Your task to perform on an android device: install app "Clock" Image 0: 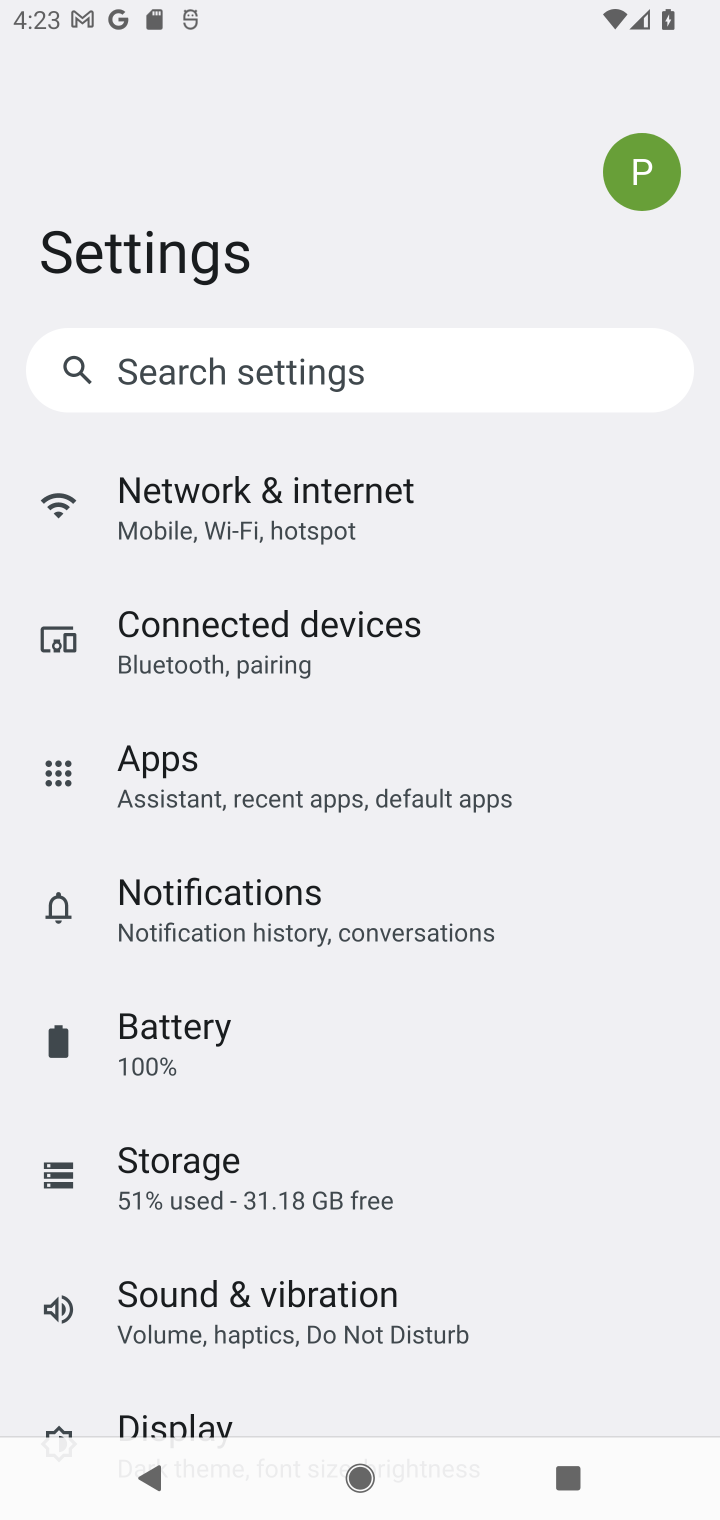
Step 0: press home button
Your task to perform on an android device: install app "Clock" Image 1: 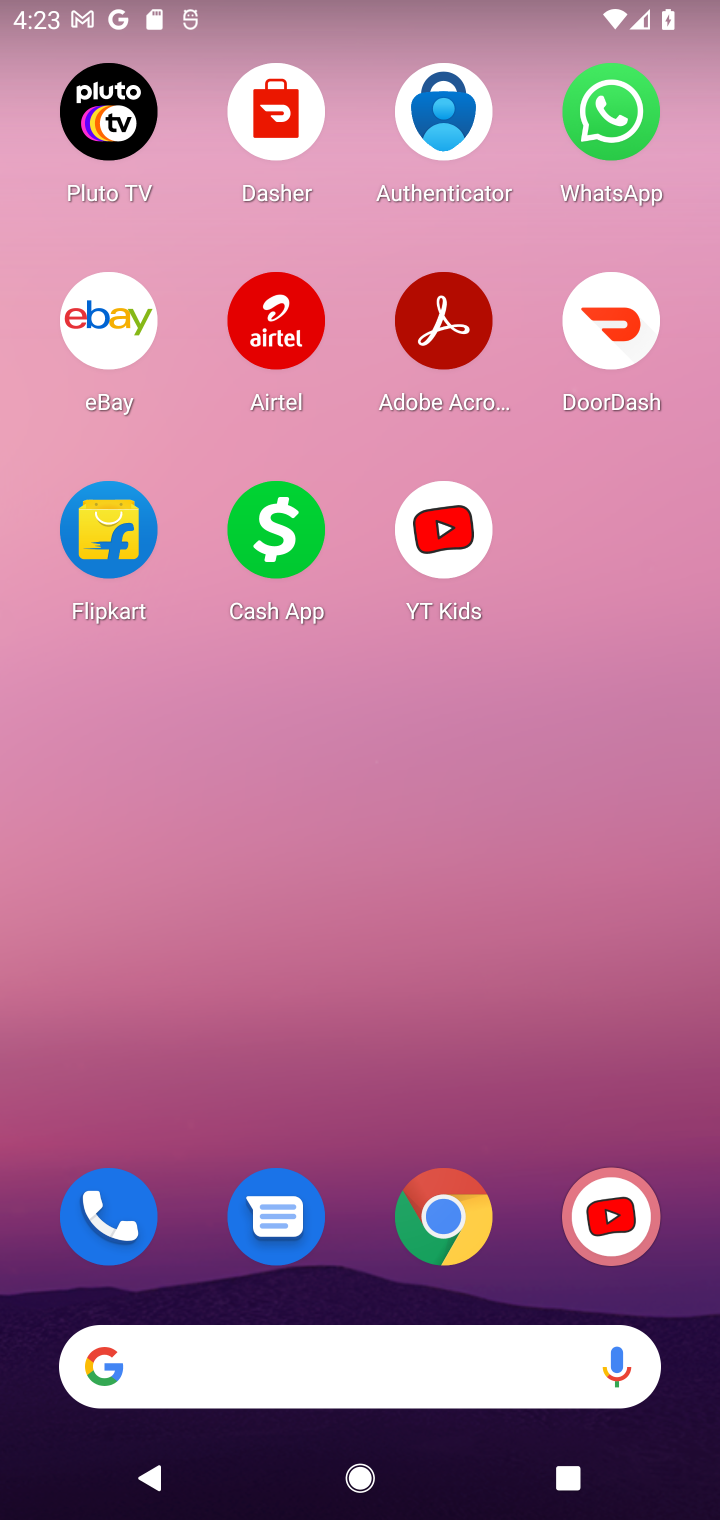
Step 1: drag from (339, 1009) to (396, 213)
Your task to perform on an android device: install app "Clock" Image 2: 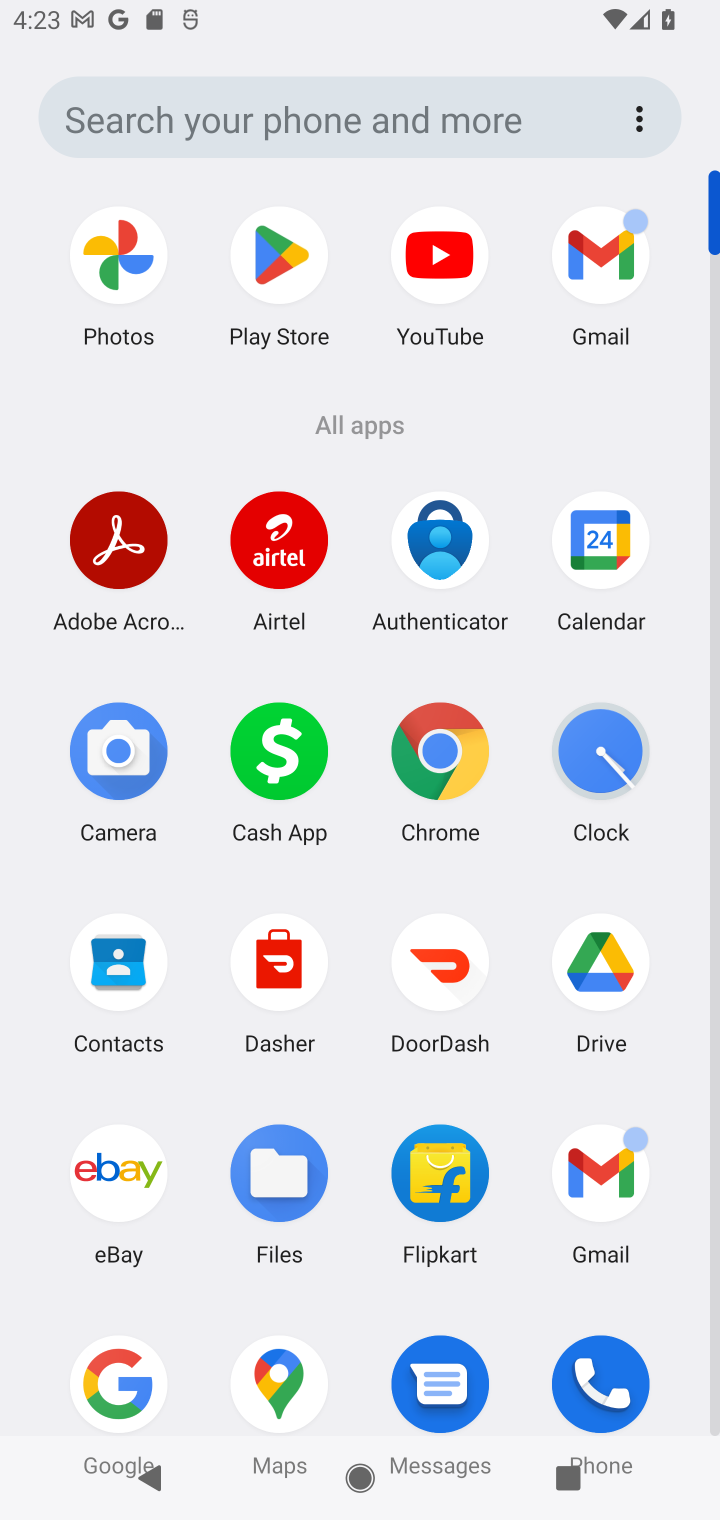
Step 2: click (287, 269)
Your task to perform on an android device: install app "Clock" Image 3: 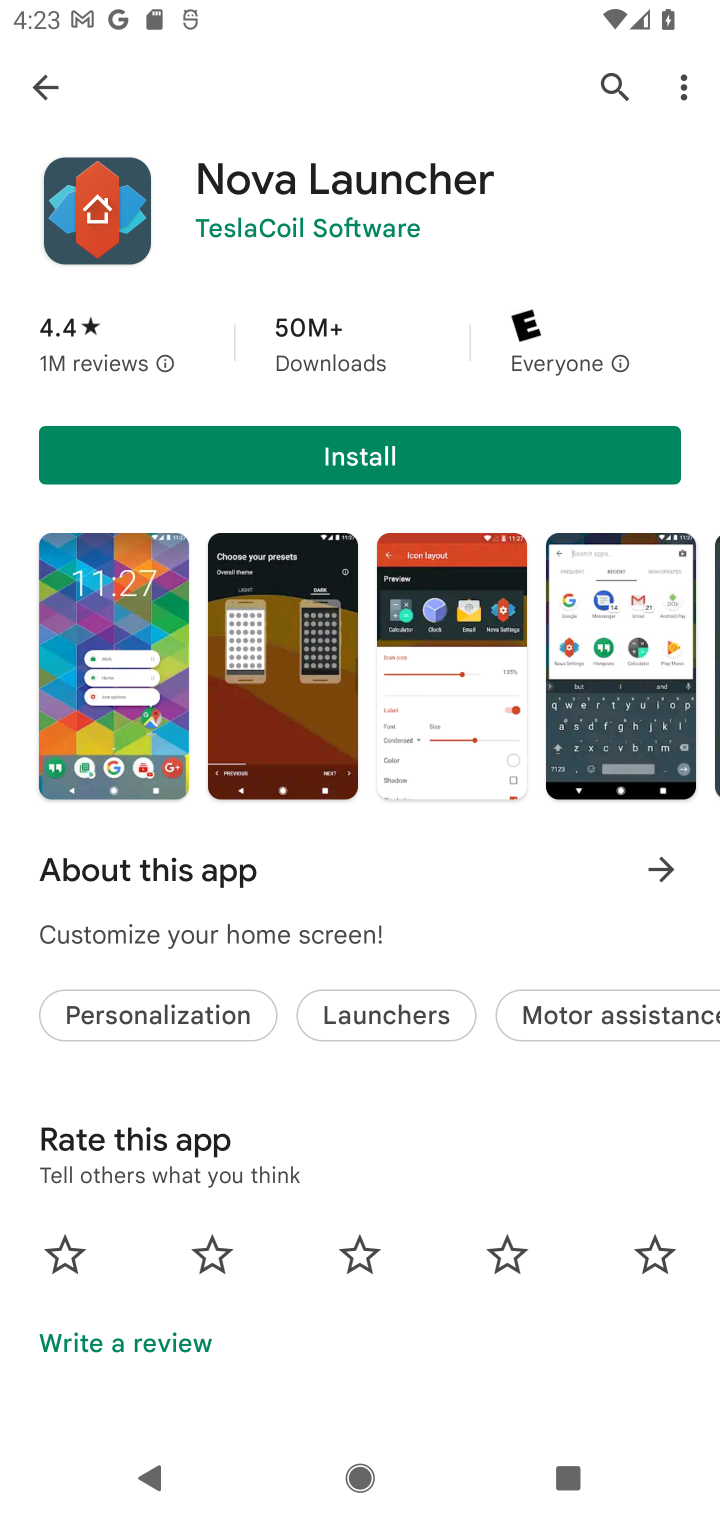
Step 3: click (635, 97)
Your task to perform on an android device: install app "Clock" Image 4: 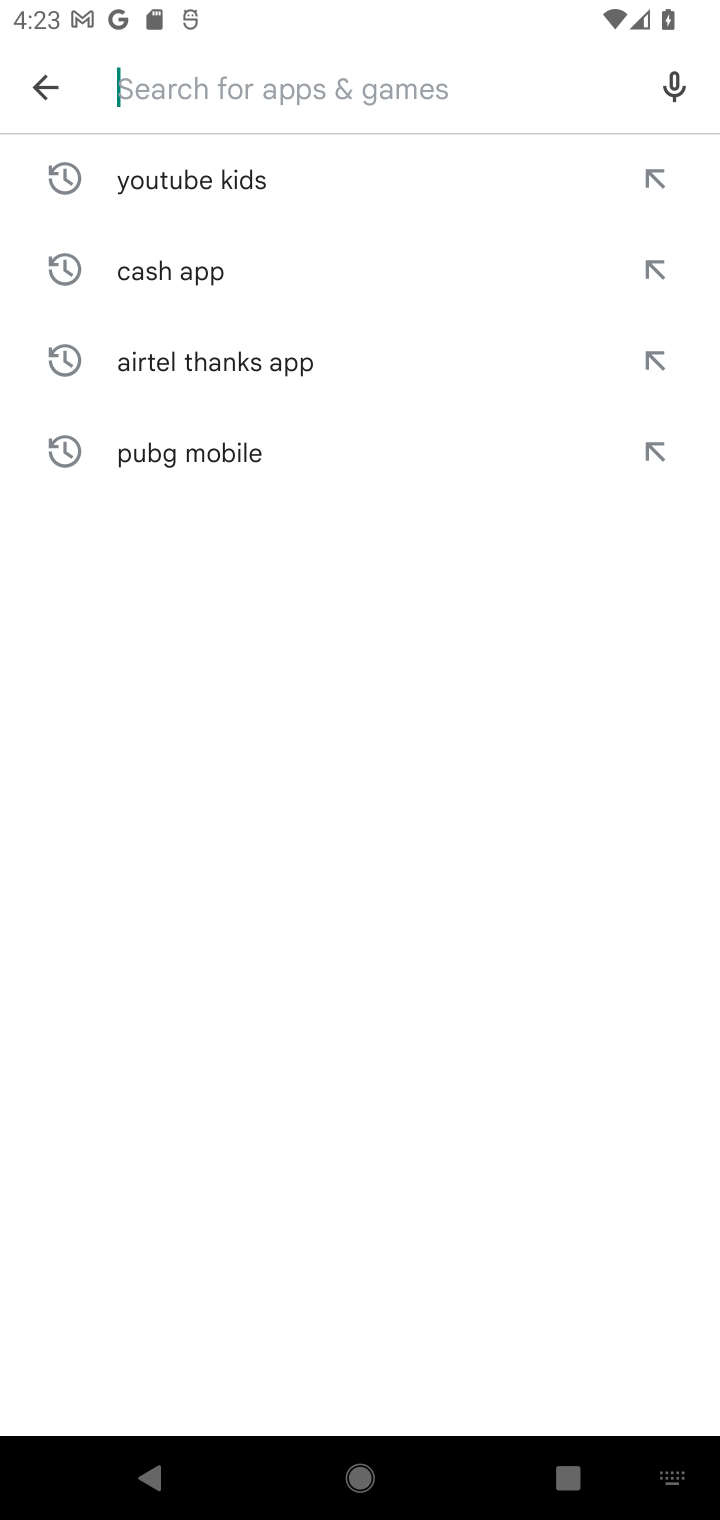
Step 4: type "Clock"
Your task to perform on an android device: install app "Clock" Image 5: 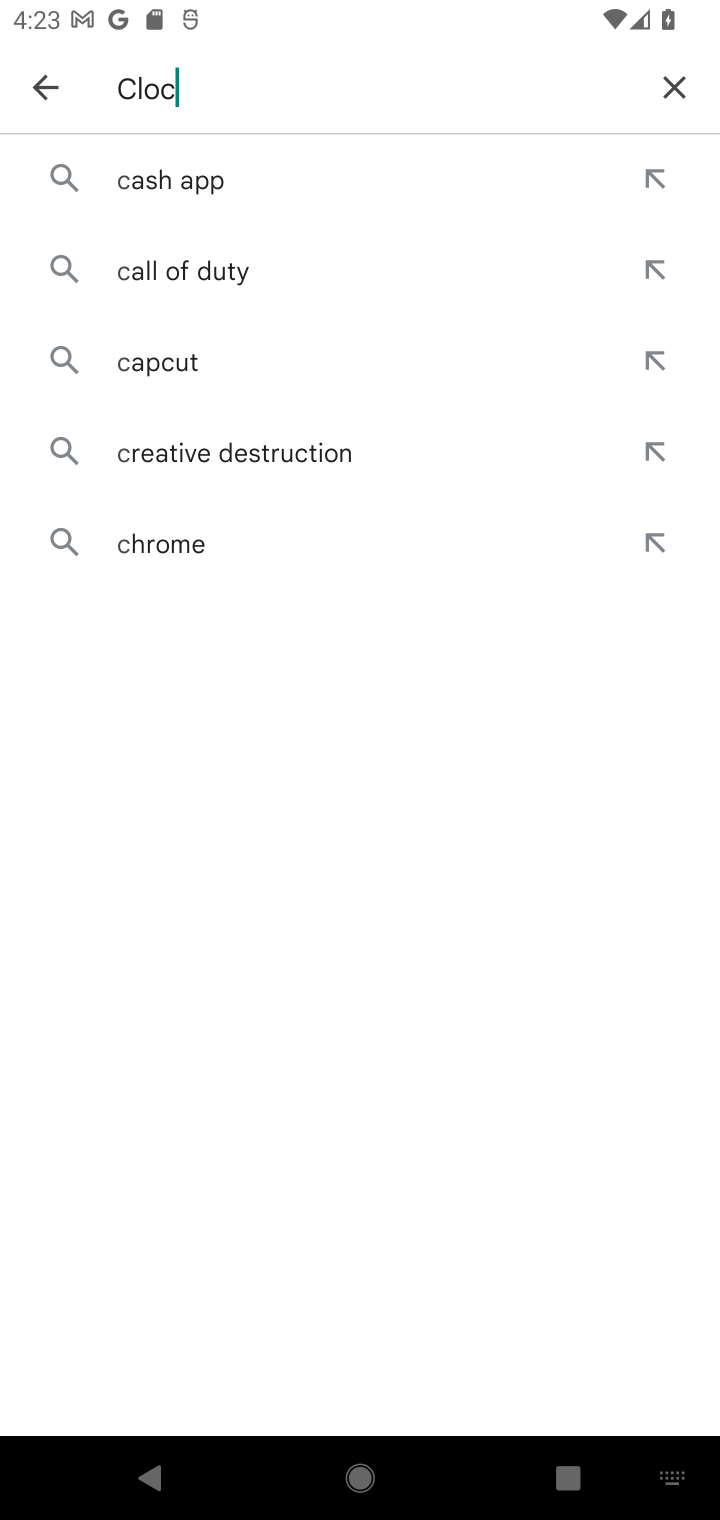
Step 5: type ""
Your task to perform on an android device: install app "Clock" Image 6: 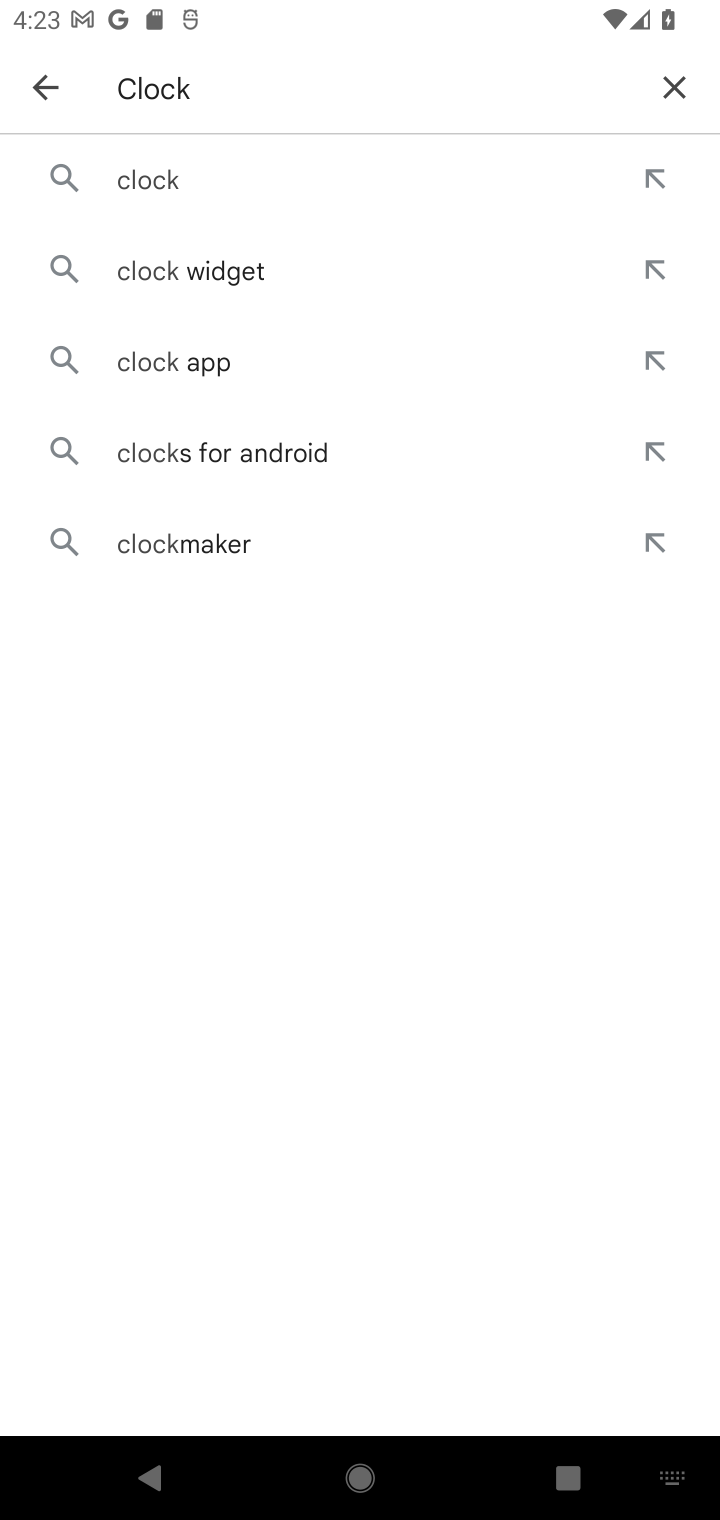
Step 6: click (172, 176)
Your task to perform on an android device: install app "Clock" Image 7: 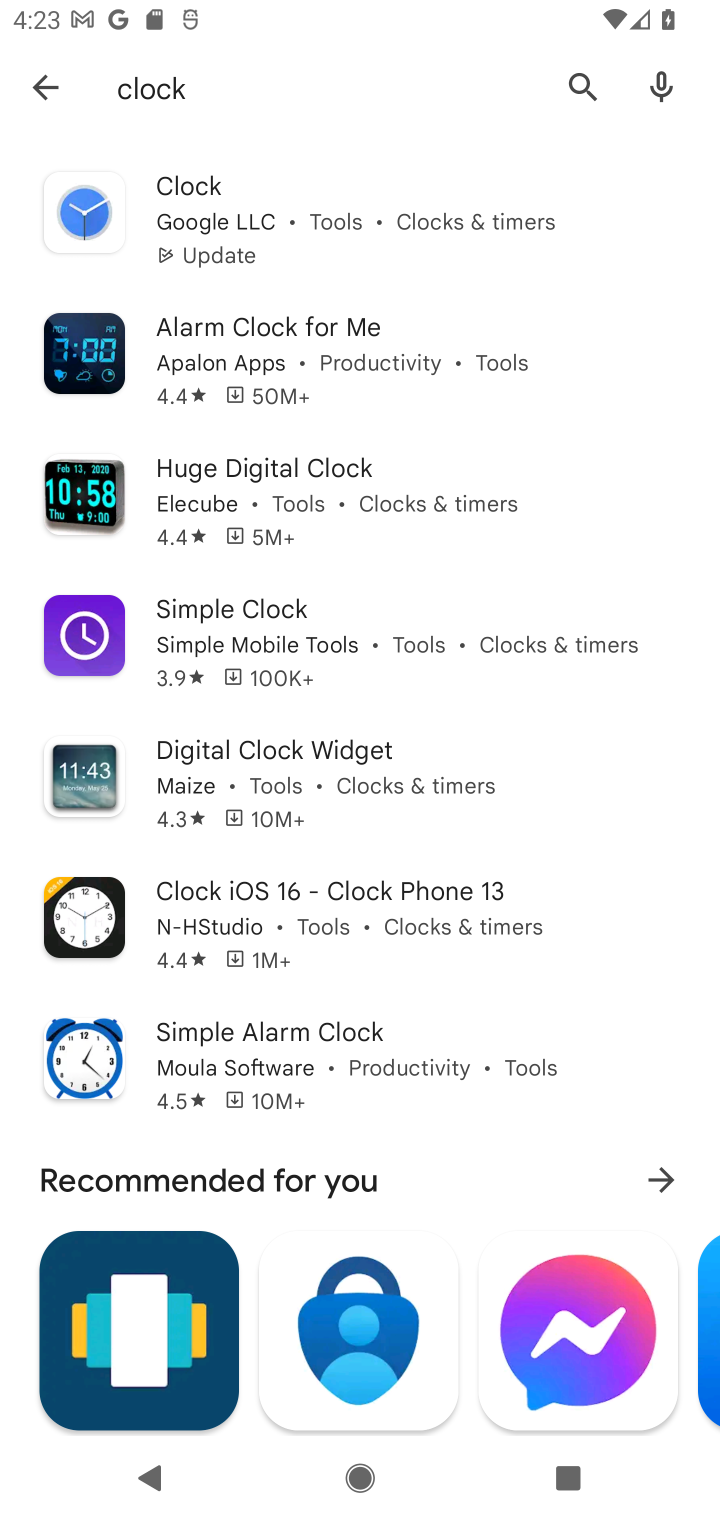
Step 7: click (273, 224)
Your task to perform on an android device: install app "Clock" Image 8: 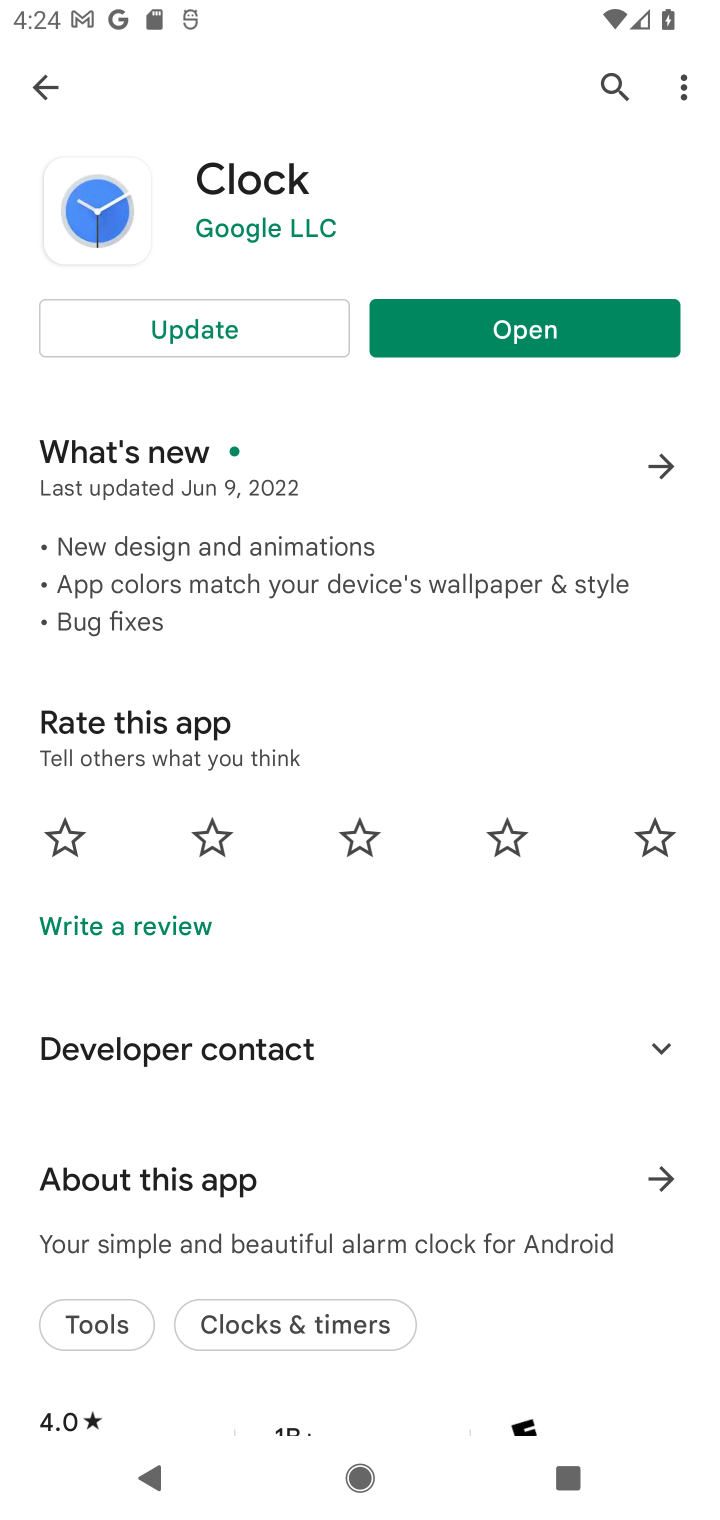
Step 8: task complete